Your task to perform on an android device: turn on airplane mode Image 0: 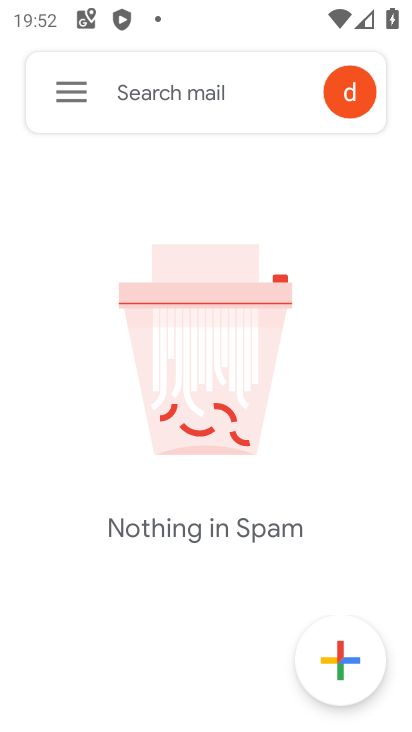
Step 0: drag from (236, 18) to (169, 712)
Your task to perform on an android device: turn on airplane mode Image 1: 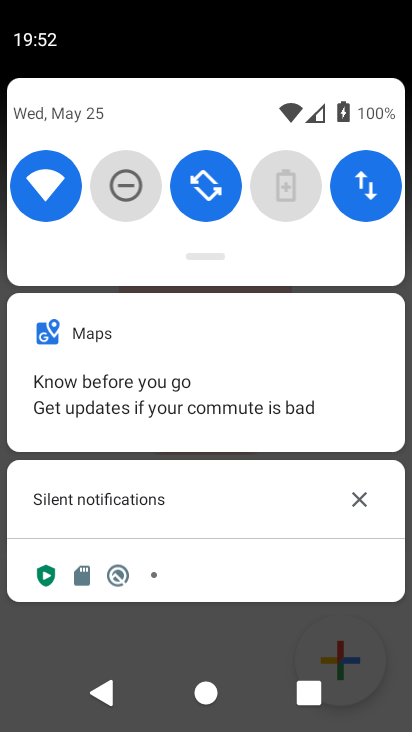
Step 1: drag from (157, 147) to (5, 617)
Your task to perform on an android device: turn on airplane mode Image 2: 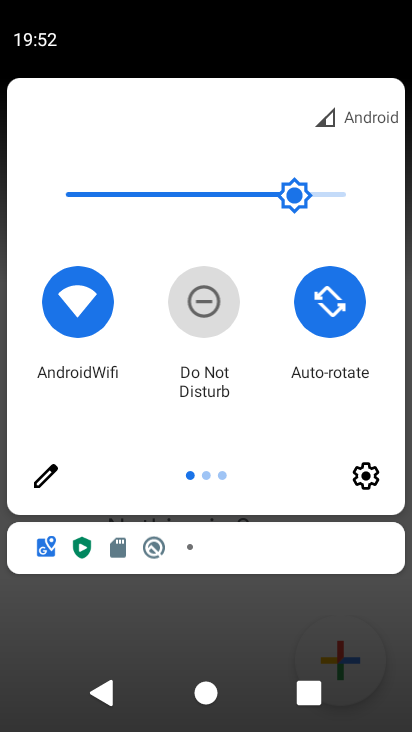
Step 2: drag from (359, 411) to (49, 417)
Your task to perform on an android device: turn on airplane mode Image 3: 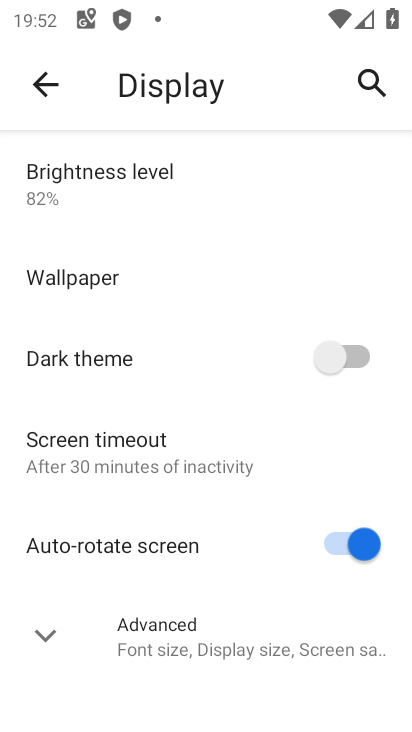
Step 3: drag from (199, 13) to (199, 643)
Your task to perform on an android device: turn on airplane mode Image 4: 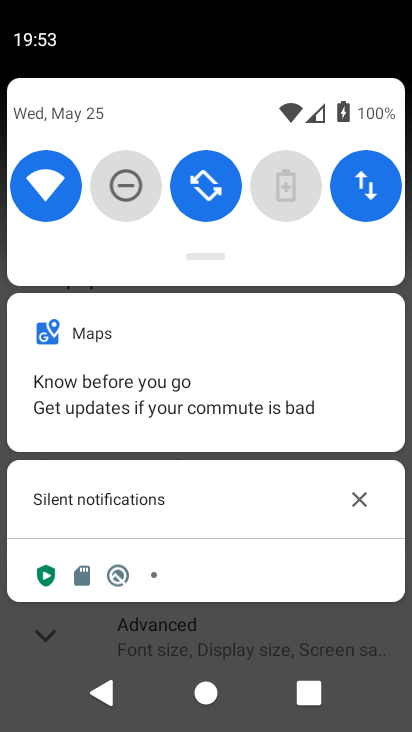
Step 4: drag from (215, 139) to (205, 682)
Your task to perform on an android device: turn on airplane mode Image 5: 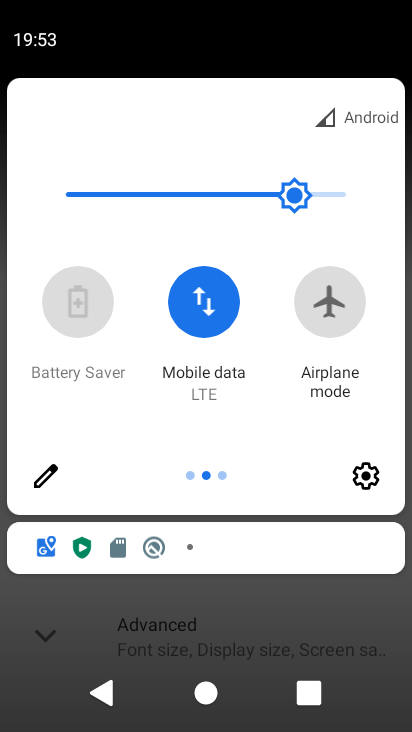
Step 5: click (342, 286)
Your task to perform on an android device: turn on airplane mode Image 6: 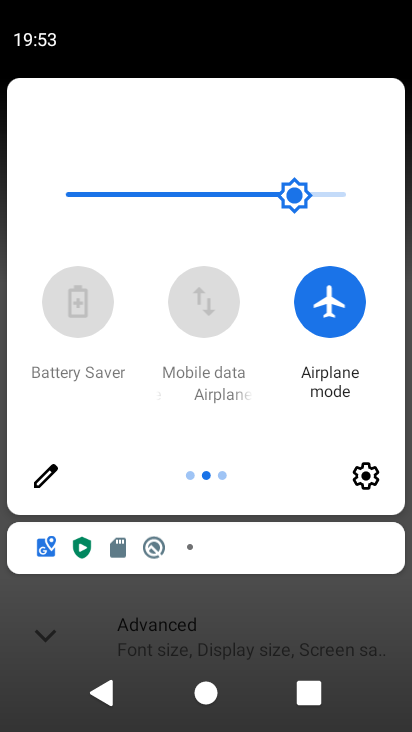
Step 6: task complete